Your task to perform on an android device: Go to Wikipedia Image 0: 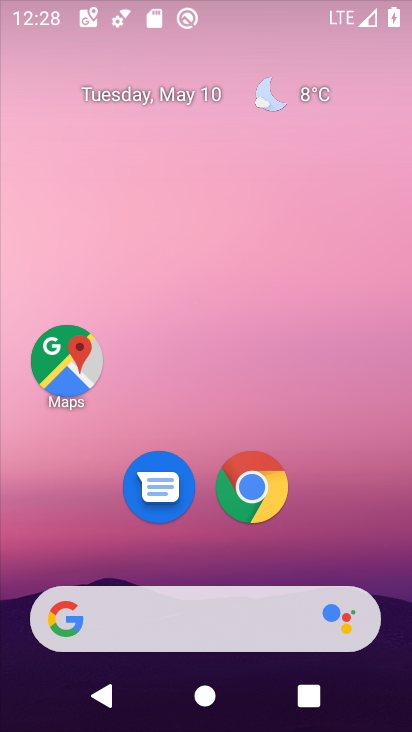
Step 0: drag from (203, 552) to (232, 38)
Your task to perform on an android device: Go to Wikipedia Image 1: 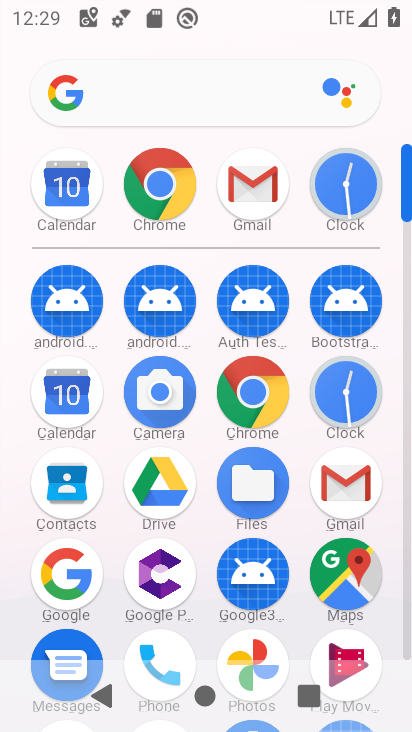
Step 1: click (251, 383)
Your task to perform on an android device: Go to Wikipedia Image 2: 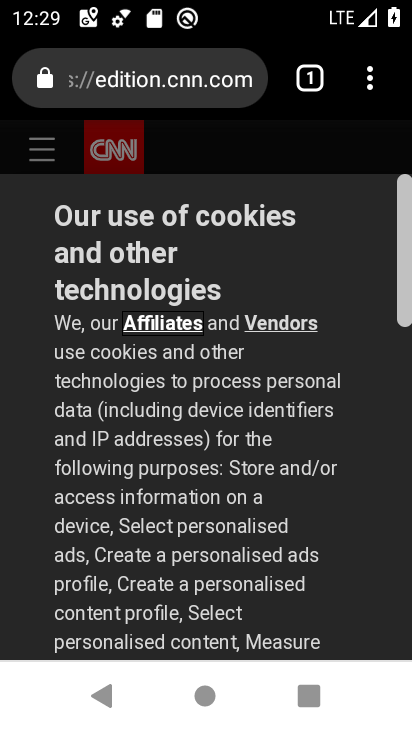
Step 2: click (308, 71)
Your task to perform on an android device: Go to Wikipedia Image 3: 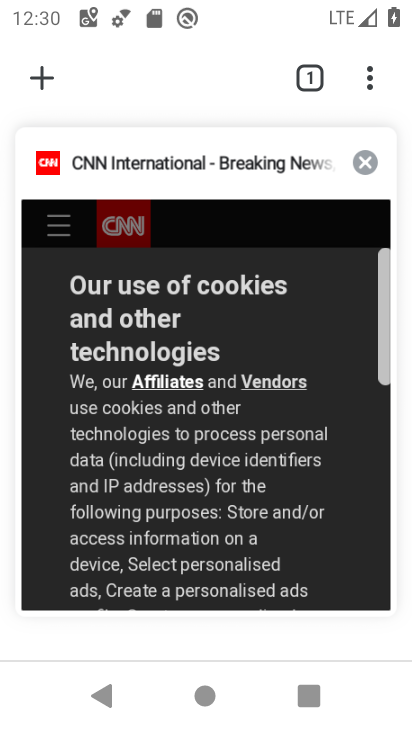
Step 3: click (365, 160)
Your task to perform on an android device: Go to Wikipedia Image 4: 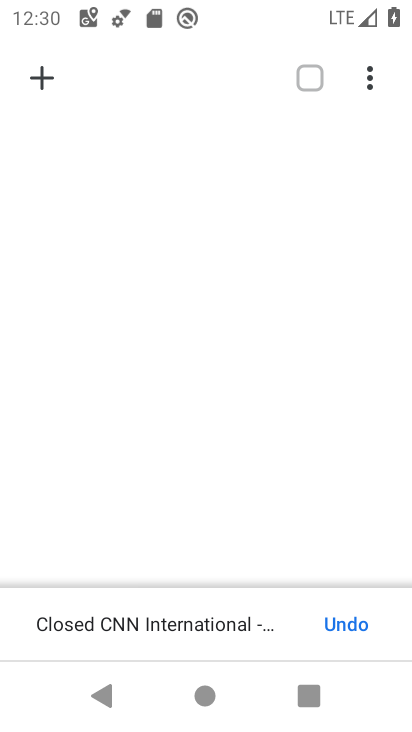
Step 4: click (46, 85)
Your task to perform on an android device: Go to Wikipedia Image 5: 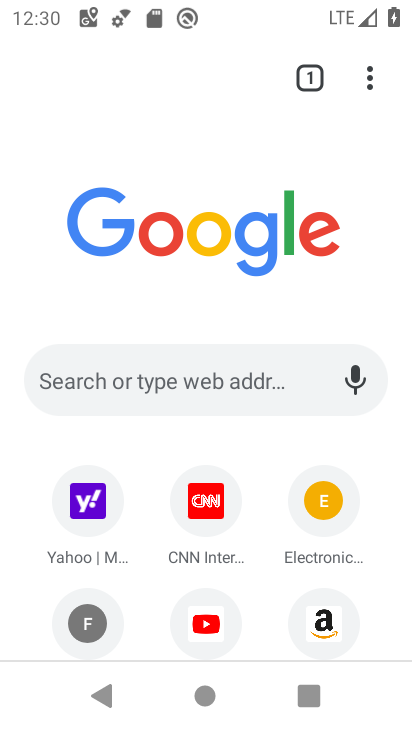
Step 5: click (155, 370)
Your task to perform on an android device: Go to Wikipedia Image 6: 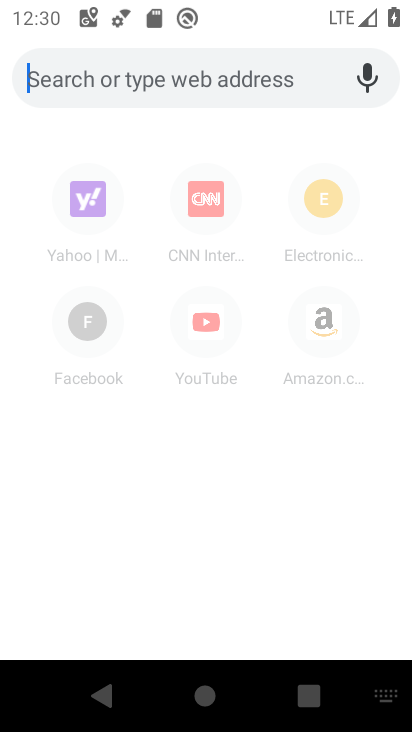
Step 6: type "wikipedia"
Your task to perform on an android device: Go to Wikipedia Image 7: 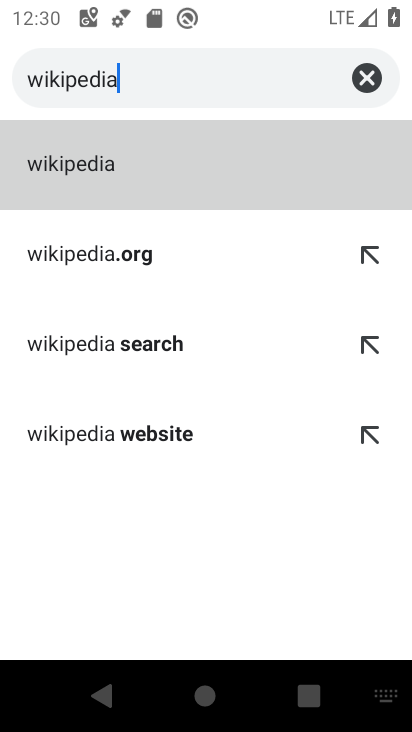
Step 7: click (140, 163)
Your task to perform on an android device: Go to Wikipedia Image 8: 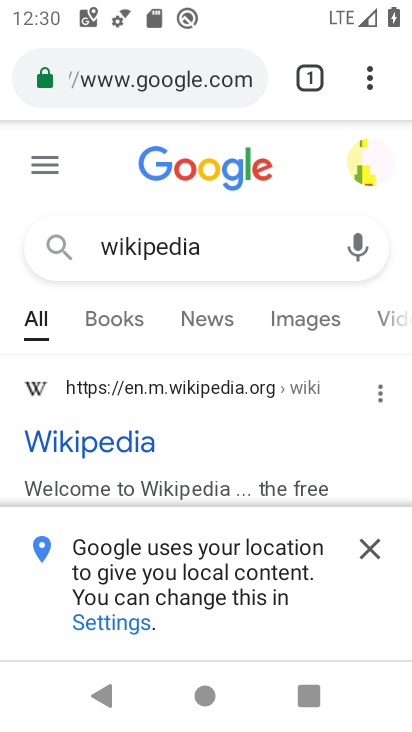
Step 8: click (120, 441)
Your task to perform on an android device: Go to Wikipedia Image 9: 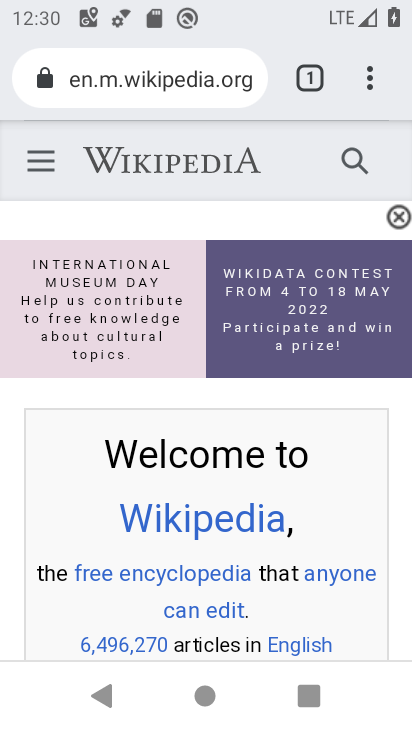
Step 9: task complete